Your task to perform on an android device: Search for good Greek restaurants Image 0: 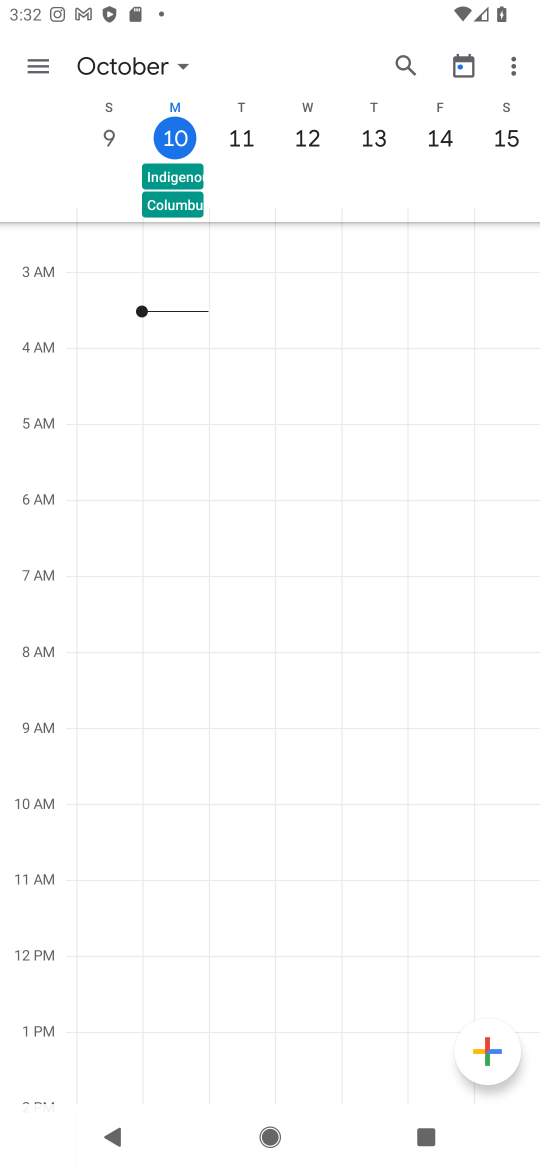
Step 0: press home button
Your task to perform on an android device: Search for good Greek restaurants Image 1: 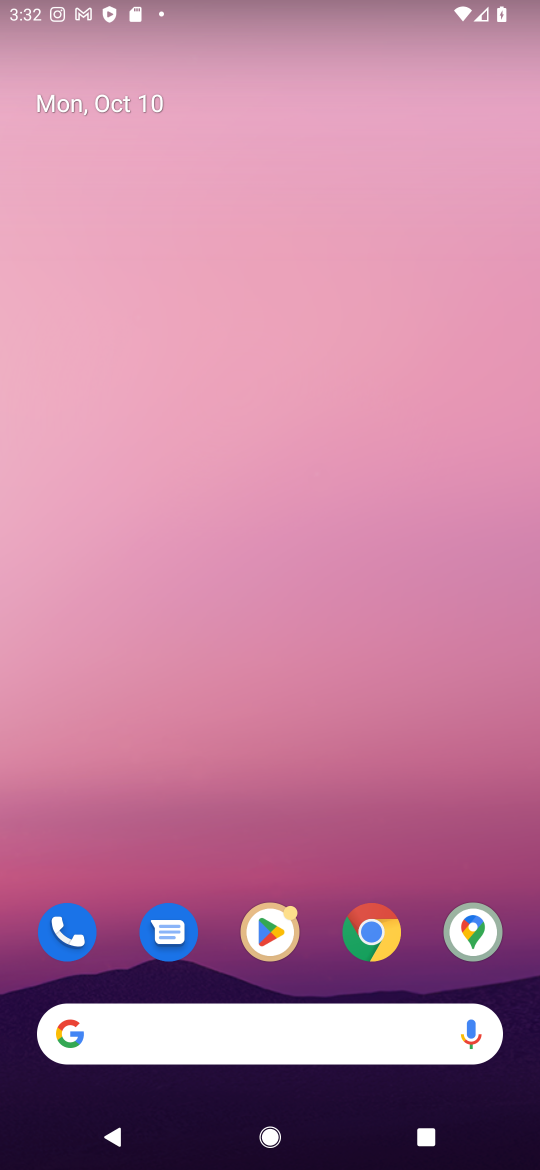
Step 1: click (290, 1045)
Your task to perform on an android device: Search for good Greek restaurants Image 2: 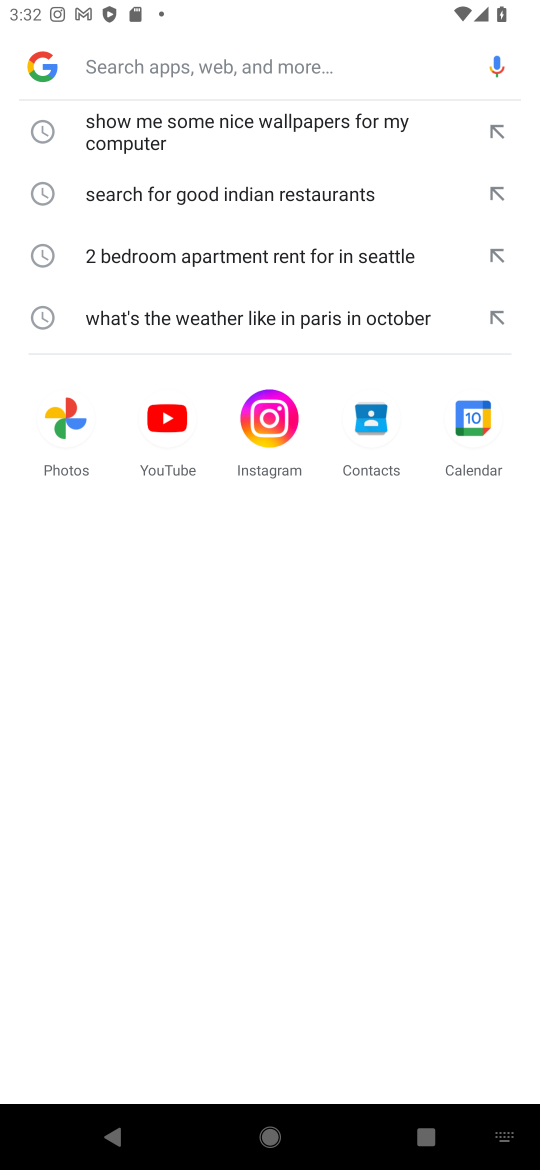
Step 2: type "good Greek restaurants"
Your task to perform on an android device: Search for good Greek restaurants Image 3: 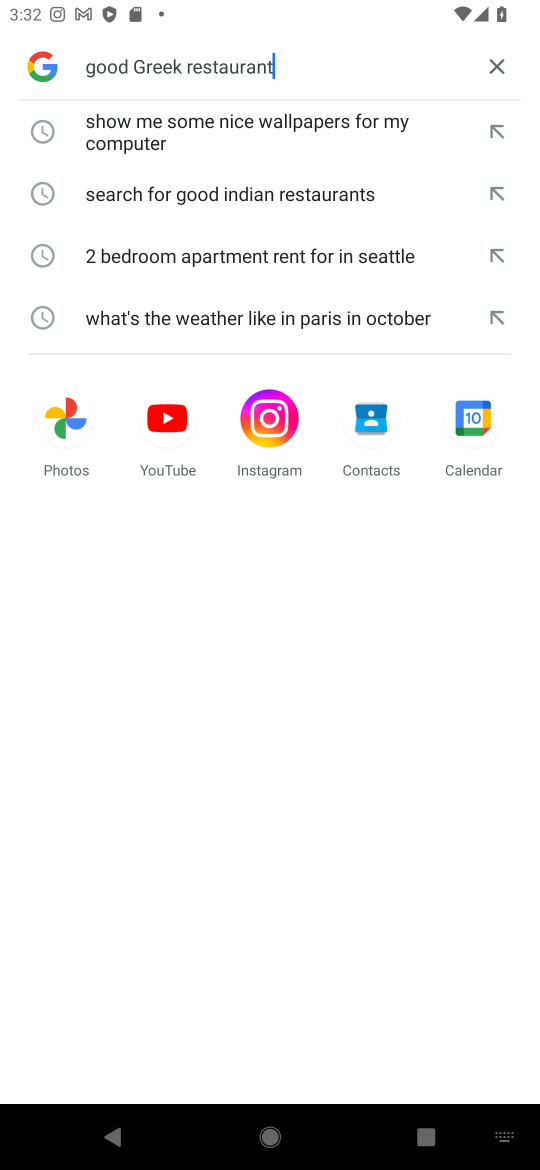
Step 3: press enter
Your task to perform on an android device: Search for good Greek restaurants Image 4: 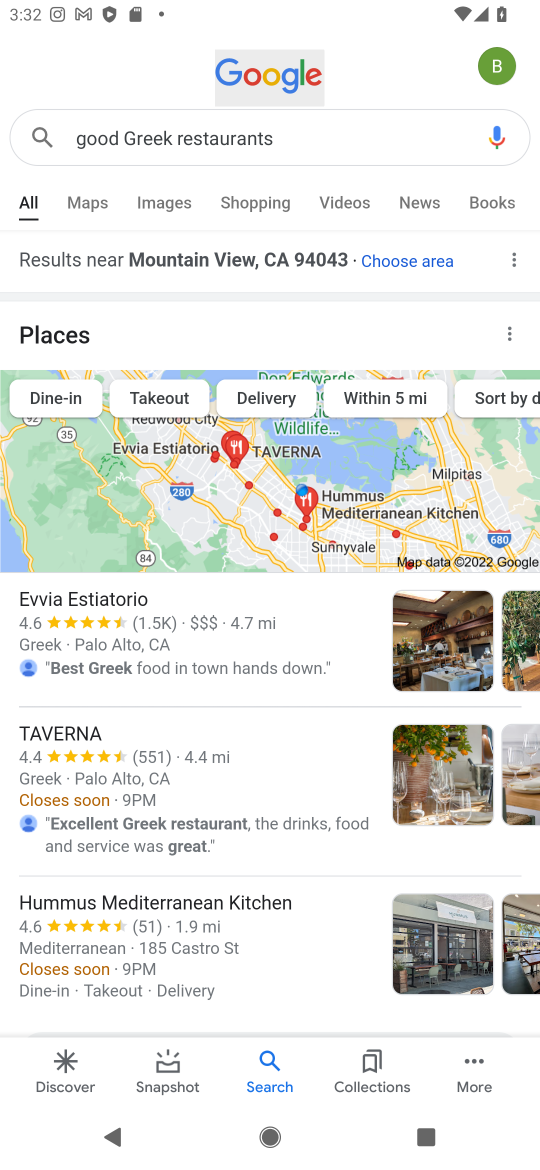
Step 4: drag from (261, 800) to (250, 522)
Your task to perform on an android device: Search for good Greek restaurants Image 5: 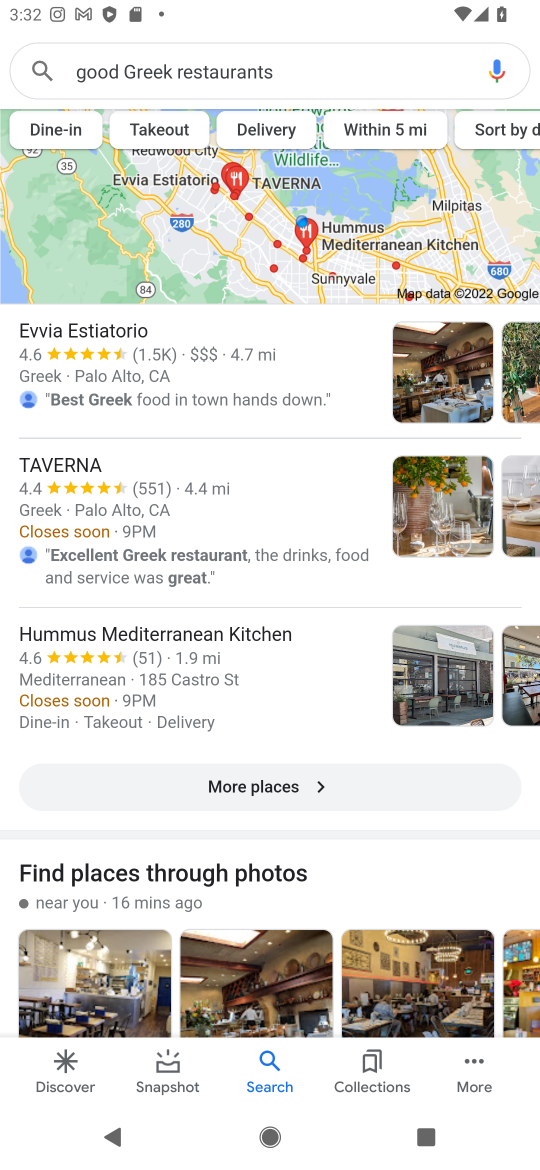
Step 5: drag from (289, 870) to (295, 441)
Your task to perform on an android device: Search for good Greek restaurants Image 6: 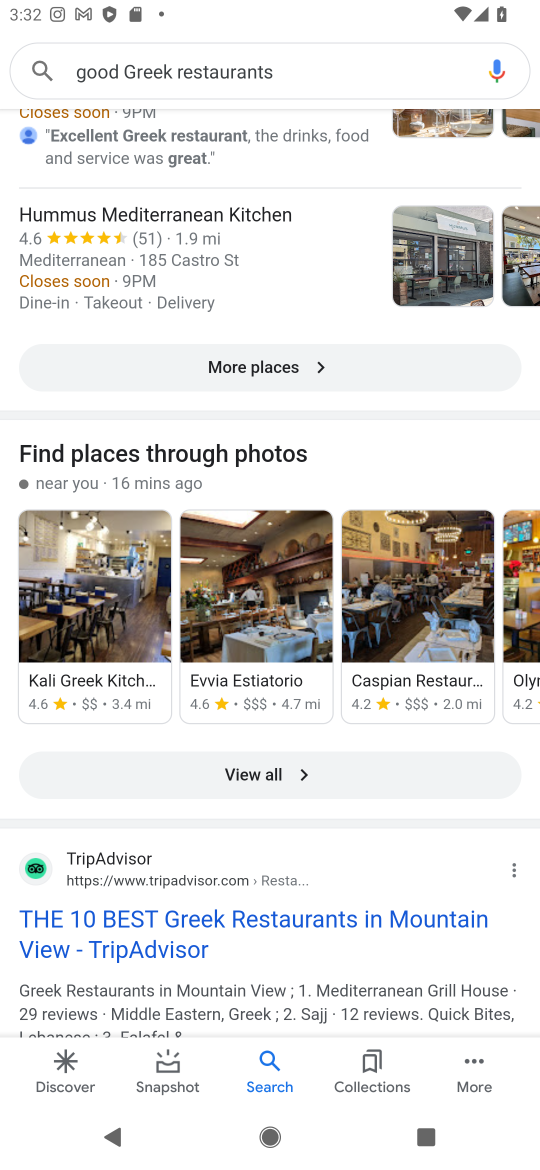
Step 6: click (345, 902)
Your task to perform on an android device: Search for good Greek restaurants Image 7: 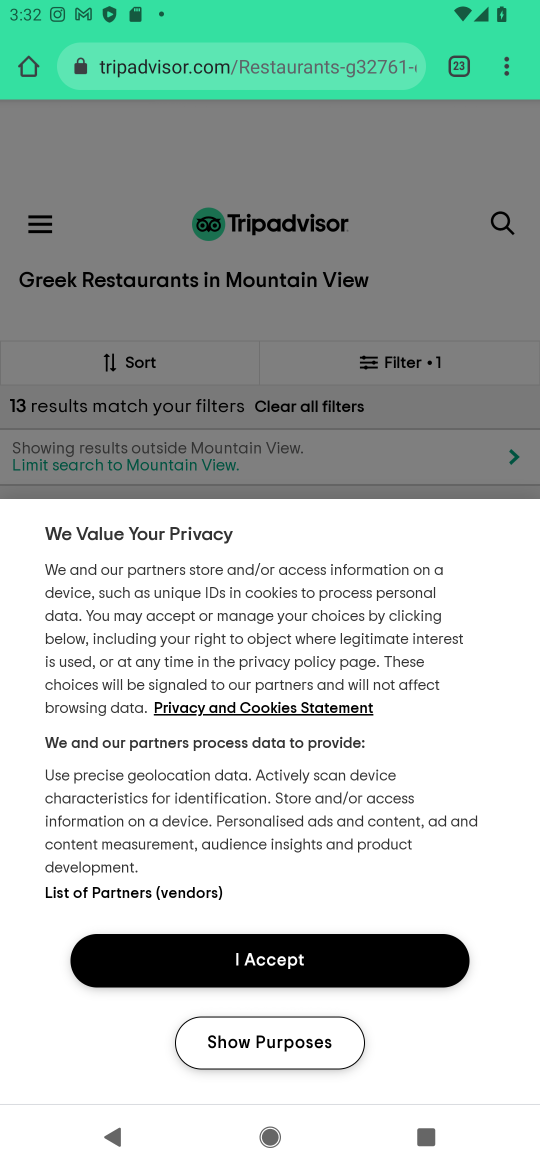
Step 7: click (356, 969)
Your task to perform on an android device: Search for good Greek restaurants Image 8: 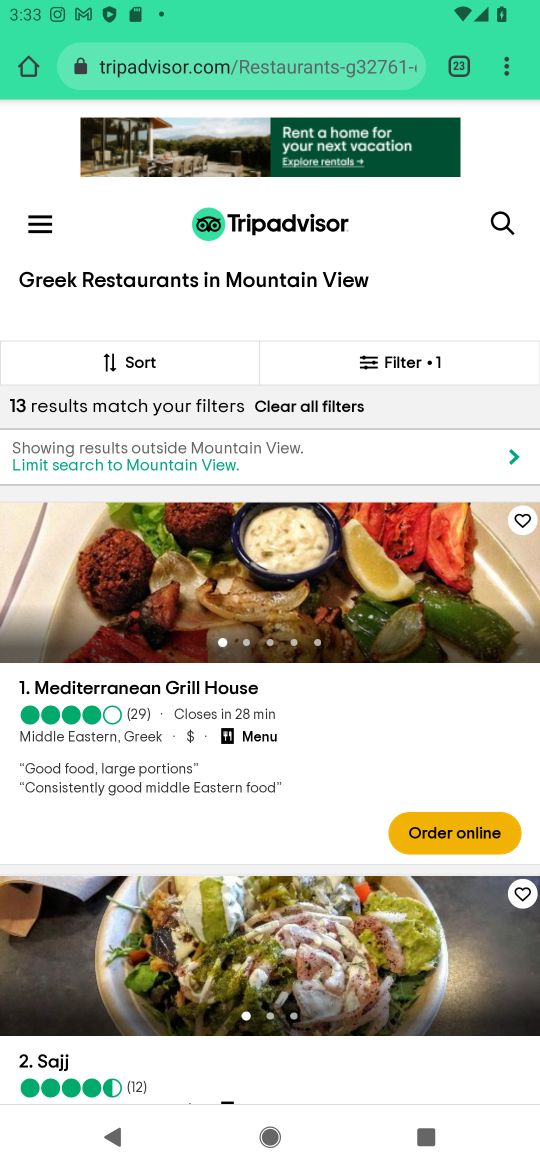
Step 8: task complete